Your task to perform on an android device: open the mobile data screen to see how much data has been used Image 0: 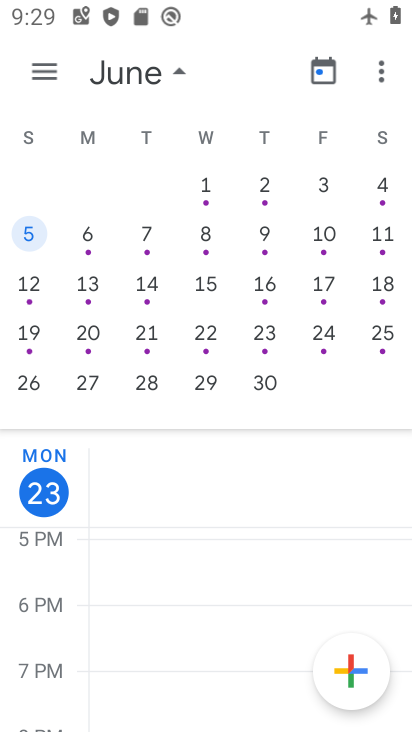
Step 0: press home button
Your task to perform on an android device: open the mobile data screen to see how much data has been used Image 1: 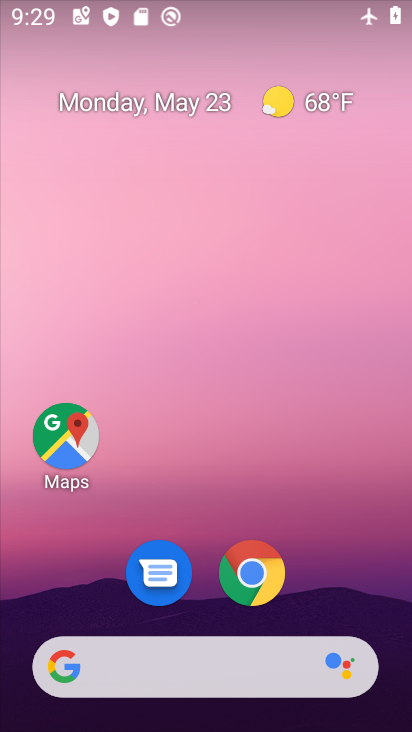
Step 1: drag from (285, 642) to (328, 171)
Your task to perform on an android device: open the mobile data screen to see how much data has been used Image 2: 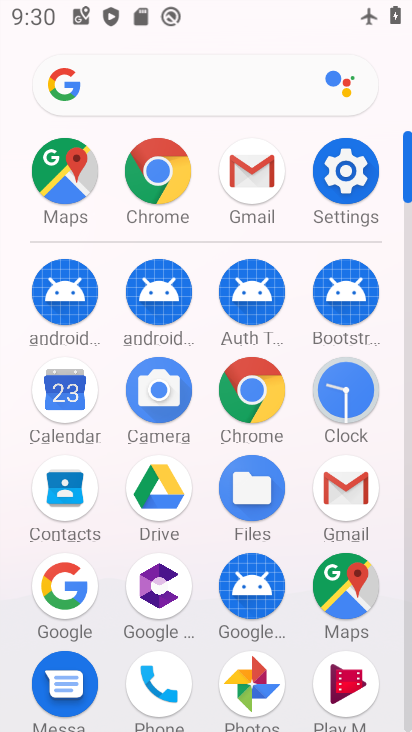
Step 2: click (327, 163)
Your task to perform on an android device: open the mobile data screen to see how much data has been used Image 3: 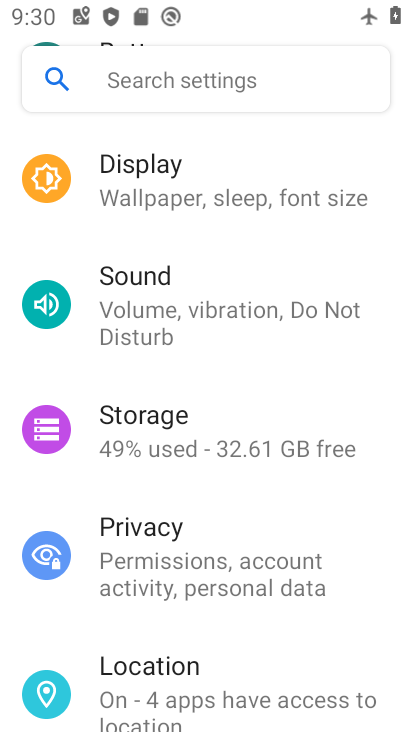
Step 3: drag from (298, 272) to (230, 663)
Your task to perform on an android device: open the mobile data screen to see how much data has been used Image 4: 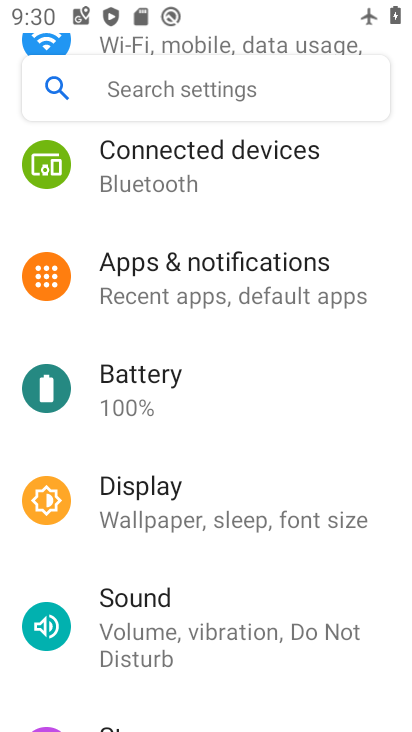
Step 4: drag from (238, 253) to (168, 713)
Your task to perform on an android device: open the mobile data screen to see how much data has been used Image 5: 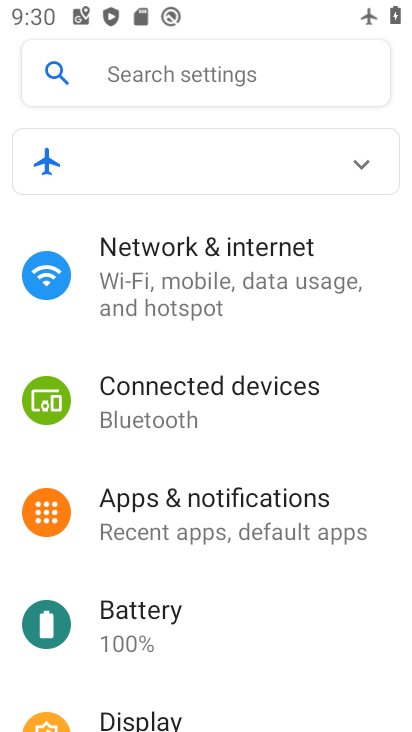
Step 5: click (268, 282)
Your task to perform on an android device: open the mobile data screen to see how much data has been used Image 6: 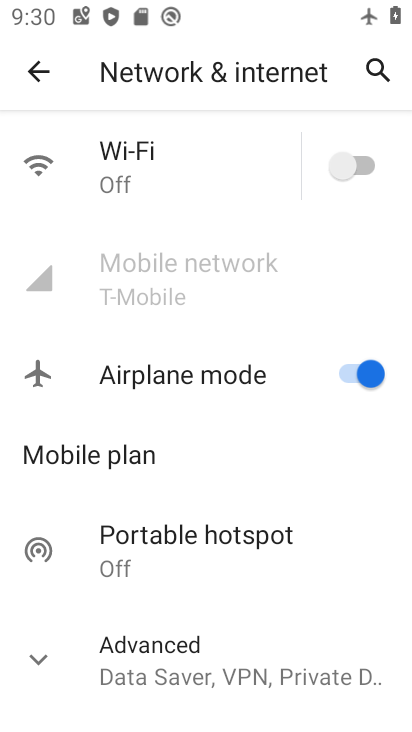
Step 6: click (244, 270)
Your task to perform on an android device: open the mobile data screen to see how much data has been used Image 7: 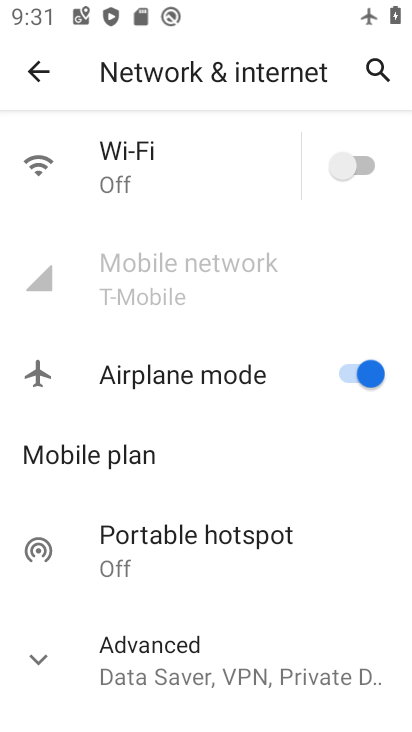
Step 7: task complete